Your task to perform on an android device: View the shopping cart on walmart. Add lenovo thinkpad to the cart on walmart Image 0: 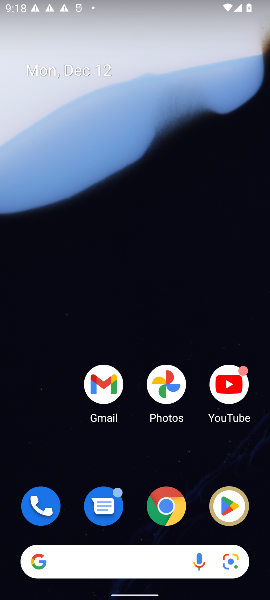
Step 0: click (114, 571)
Your task to perform on an android device: View the shopping cart on walmart. Add lenovo thinkpad to the cart on walmart Image 1: 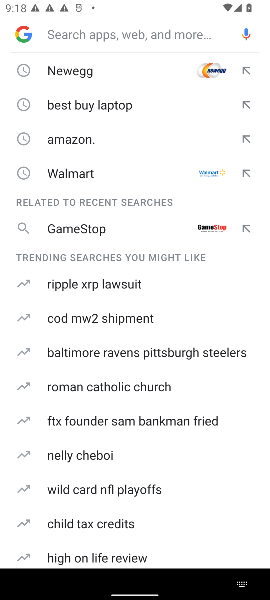
Step 1: click (131, 171)
Your task to perform on an android device: View the shopping cart on walmart. Add lenovo thinkpad to the cart on walmart Image 2: 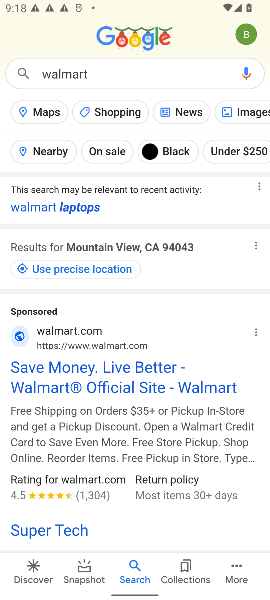
Step 2: click (64, 376)
Your task to perform on an android device: View the shopping cart on walmart. Add lenovo thinkpad to the cart on walmart Image 3: 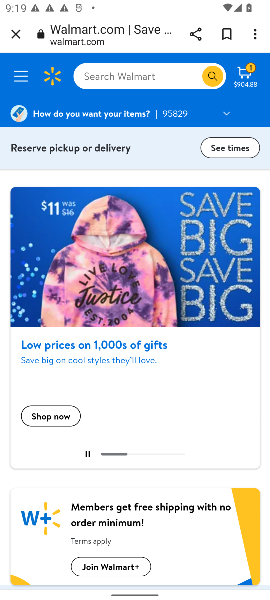
Step 3: click (103, 73)
Your task to perform on an android device: View the shopping cart on walmart. Add lenovo thinkpad to the cart on walmart Image 4: 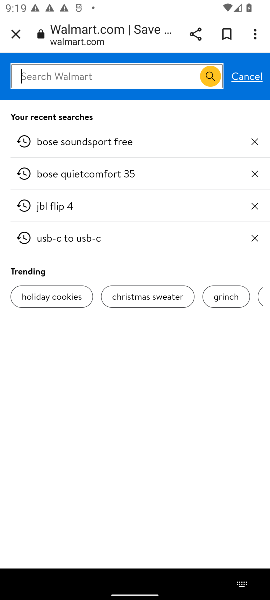
Step 4: type "lenovo"
Your task to perform on an android device: View the shopping cart on walmart. Add lenovo thinkpad to the cart on walmart Image 5: 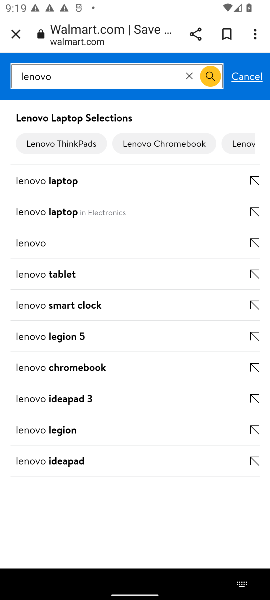
Step 5: type " thinkpad"
Your task to perform on an android device: View the shopping cart on walmart. Add lenovo thinkpad to the cart on walmart Image 6: 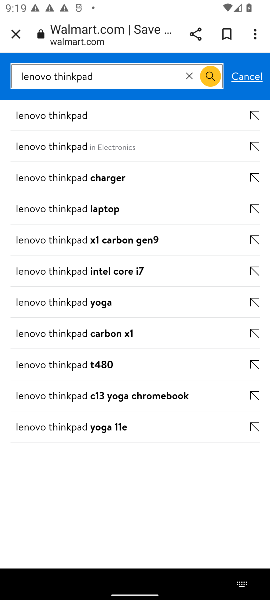
Step 6: click (100, 103)
Your task to perform on an android device: View the shopping cart on walmart. Add lenovo thinkpad to the cart on walmart Image 7: 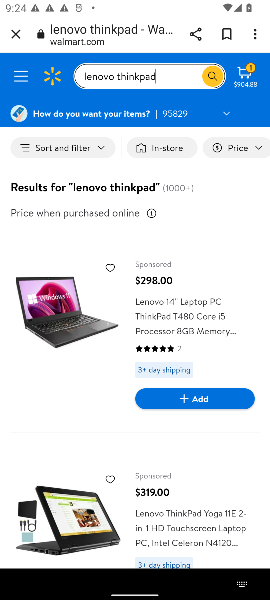
Step 7: press home button
Your task to perform on an android device: View the shopping cart on walmart. Add lenovo thinkpad to the cart on walmart Image 8: 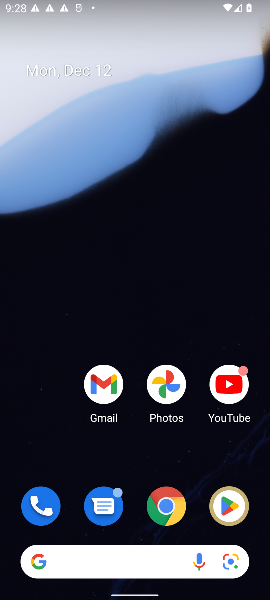
Step 8: click (130, 573)
Your task to perform on an android device: View the shopping cart on walmart. Add lenovo thinkpad to the cart on walmart Image 9: 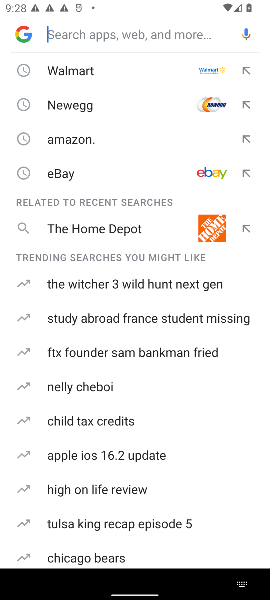
Step 9: click (60, 64)
Your task to perform on an android device: View the shopping cart on walmart. Add lenovo thinkpad to the cart on walmart Image 10: 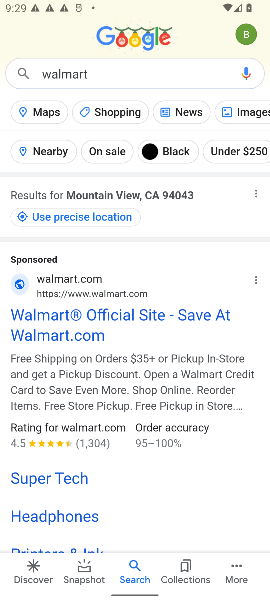
Step 10: click (77, 312)
Your task to perform on an android device: View the shopping cart on walmart. Add lenovo thinkpad to the cart on walmart Image 11: 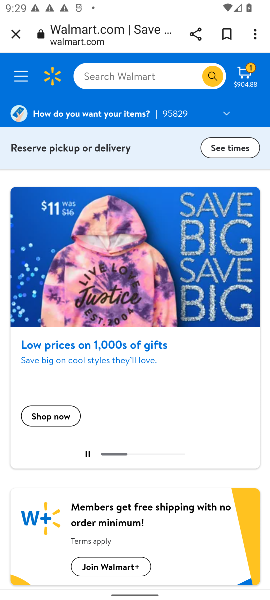
Step 11: click (119, 83)
Your task to perform on an android device: View the shopping cart on walmart. Add lenovo thinkpad to the cart on walmart Image 12: 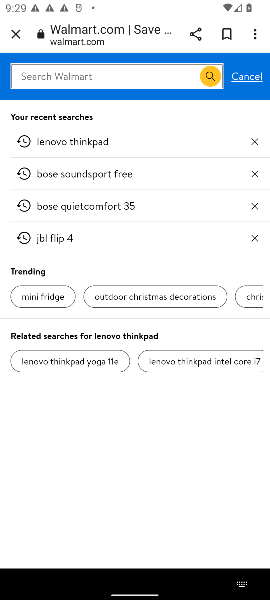
Step 12: type "lenovo"
Your task to perform on an android device: View the shopping cart on walmart. Add lenovo thinkpad to the cart on walmart Image 13: 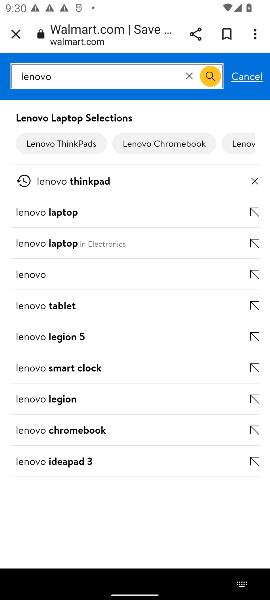
Step 13: type " thinkpad"
Your task to perform on an android device: View the shopping cart on walmart. Add lenovo thinkpad to the cart on walmart Image 14: 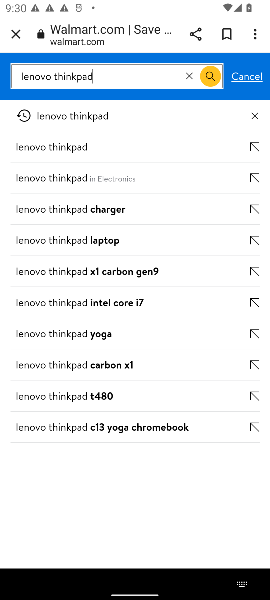
Step 14: click (82, 126)
Your task to perform on an android device: View the shopping cart on walmart. Add lenovo thinkpad to the cart on walmart Image 15: 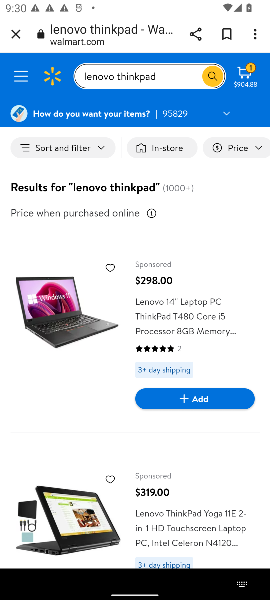
Step 15: click (214, 408)
Your task to perform on an android device: View the shopping cart on walmart. Add lenovo thinkpad to the cart on walmart Image 16: 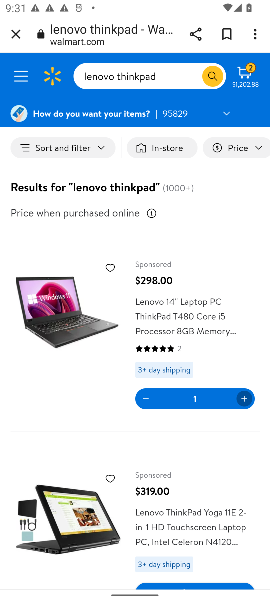
Step 16: task complete